Your task to perform on an android device: check google app version Image 0: 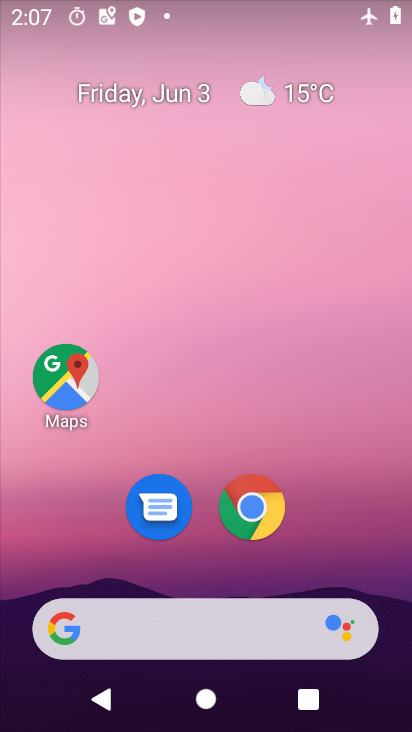
Step 0: drag from (391, 641) to (290, 34)
Your task to perform on an android device: check google app version Image 1: 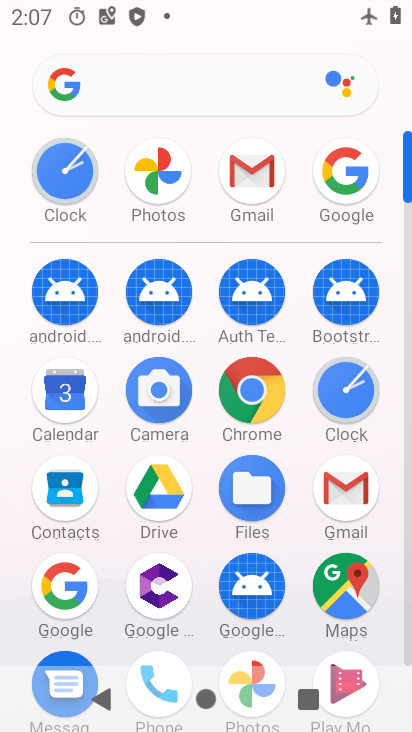
Step 1: click (64, 583)
Your task to perform on an android device: check google app version Image 2: 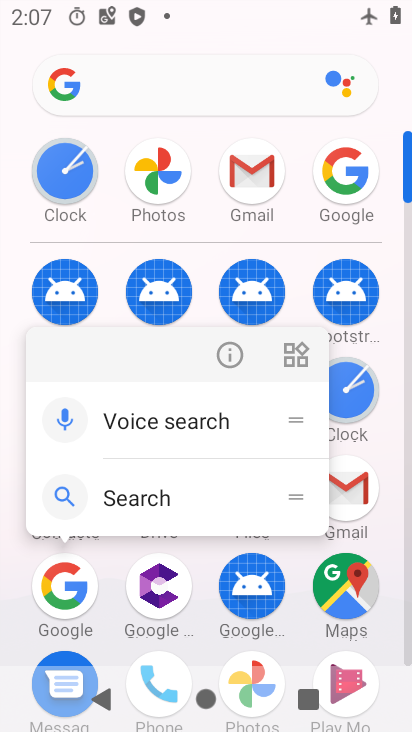
Step 2: click (231, 363)
Your task to perform on an android device: check google app version Image 3: 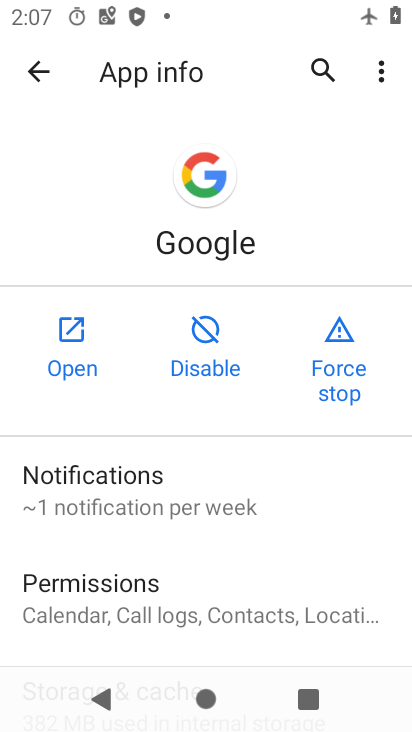
Step 3: drag from (156, 644) to (135, 128)
Your task to perform on an android device: check google app version Image 4: 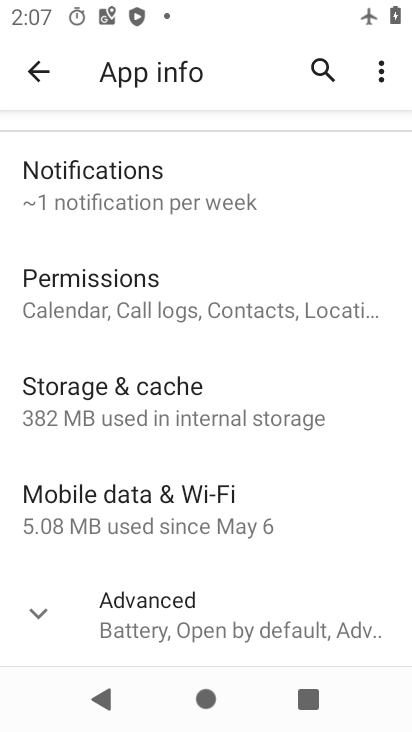
Step 4: click (41, 619)
Your task to perform on an android device: check google app version Image 5: 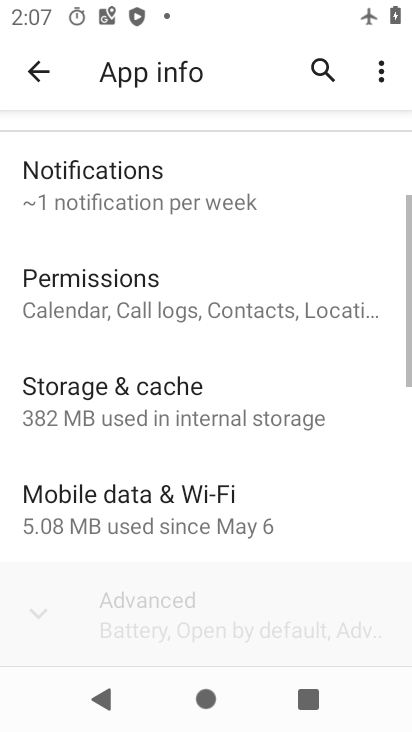
Step 5: task complete